Your task to perform on an android device: Go to Maps Image 0: 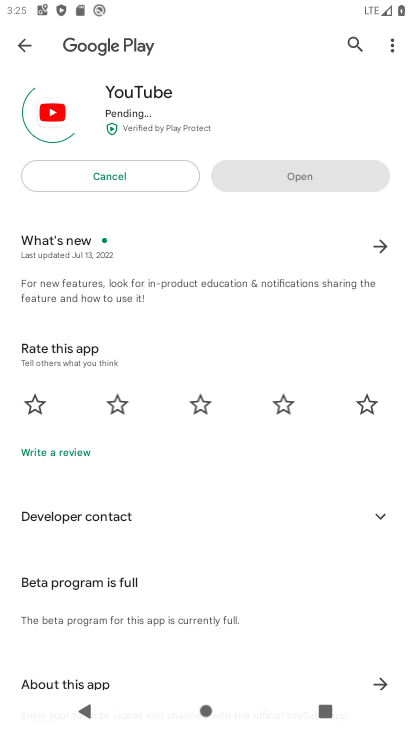
Step 0: press home button
Your task to perform on an android device: Go to Maps Image 1: 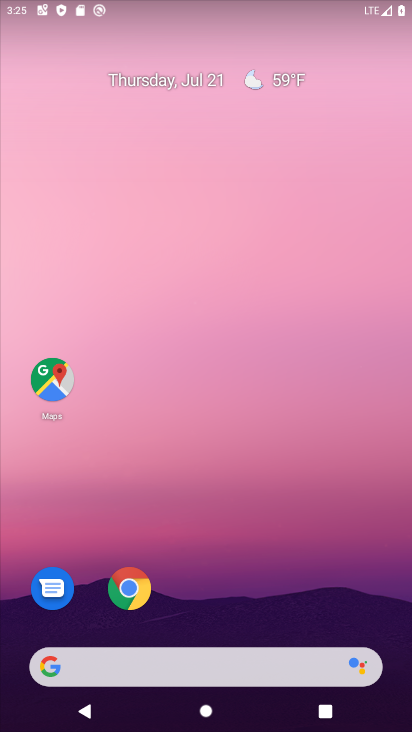
Step 1: click (65, 381)
Your task to perform on an android device: Go to Maps Image 2: 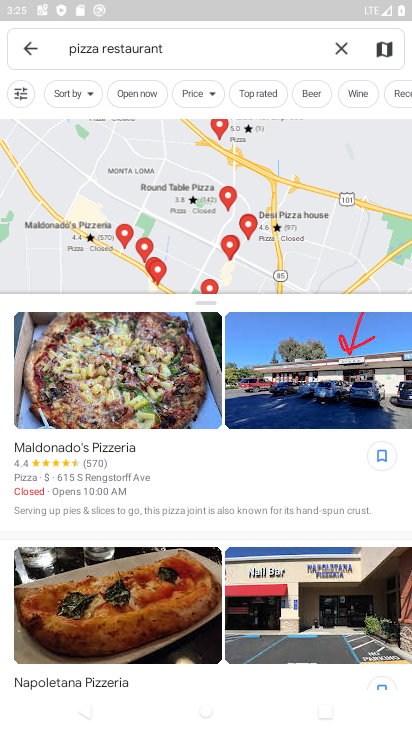
Step 2: task complete